Your task to perform on an android device: turn off picture-in-picture Image 0: 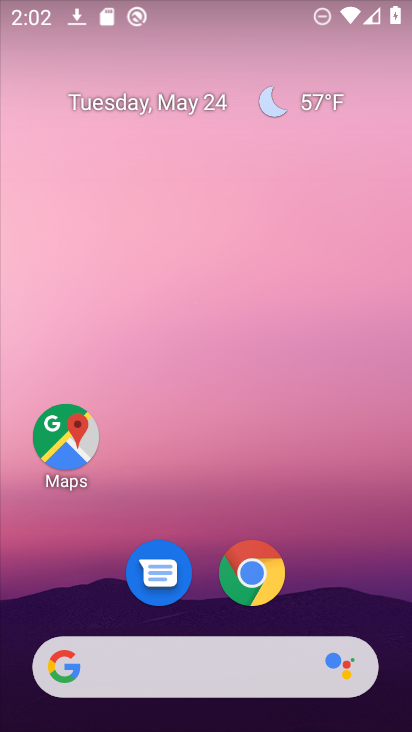
Step 0: drag from (373, 533) to (339, 144)
Your task to perform on an android device: turn off picture-in-picture Image 1: 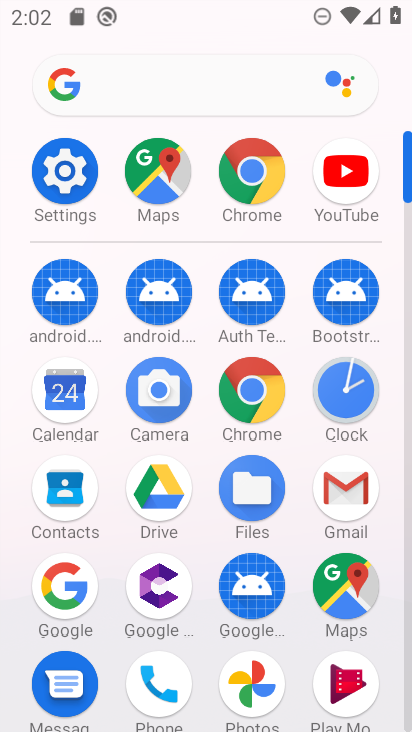
Step 1: click (76, 172)
Your task to perform on an android device: turn off picture-in-picture Image 2: 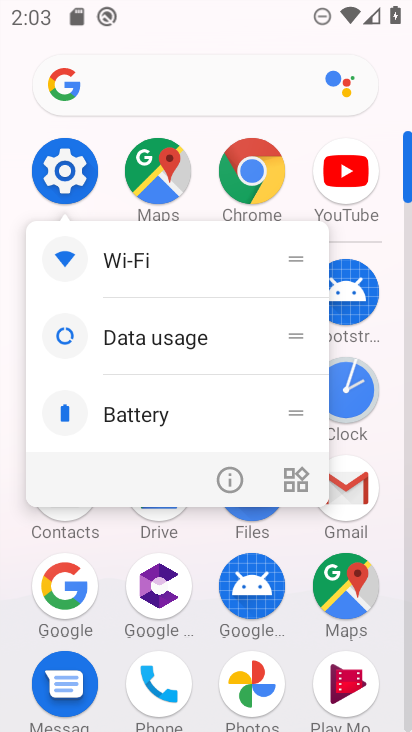
Step 2: click (45, 180)
Your task to perform on an android device: turn off picture-in-picture Image 3: 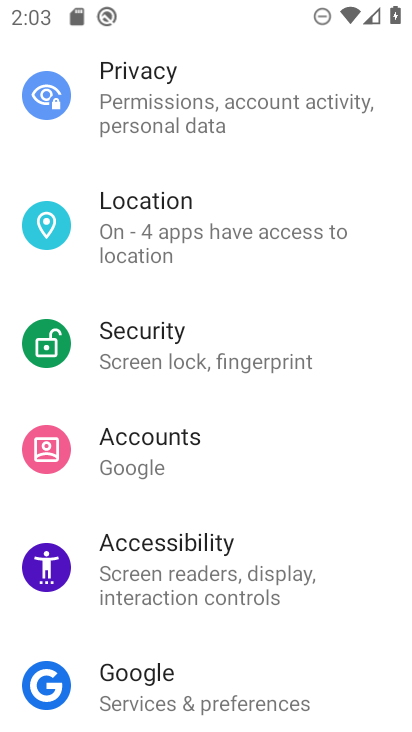
Step 3: drag from (187, 206) to (230, 512)
Your task to perform on an android device: turn off picture-in-picture Image 4: 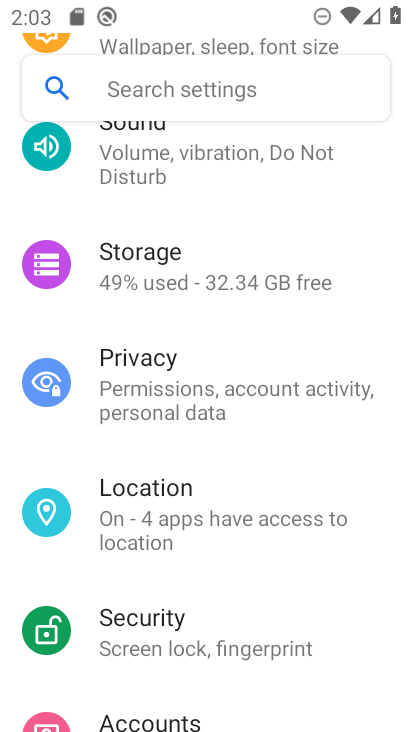
Step 4: drag from (205, 178) to (218, 500)
Your task to perform on an android device: turn off picture-in-picture Image 5: 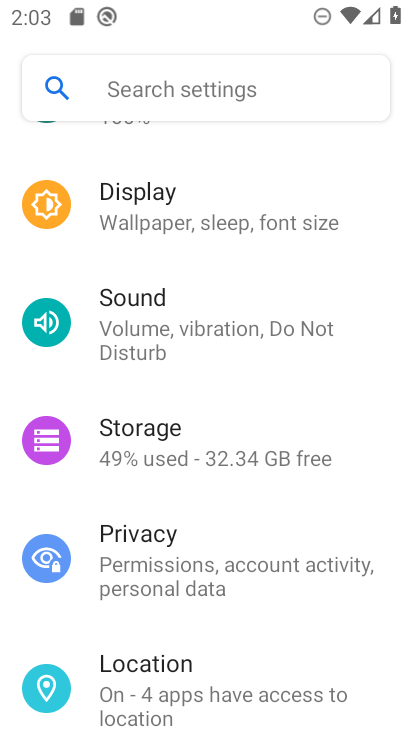
Step 5: drag from (230, 241) to (234, 573)
Your task to perform on an android device: turn off picture-in-picture Image 6: 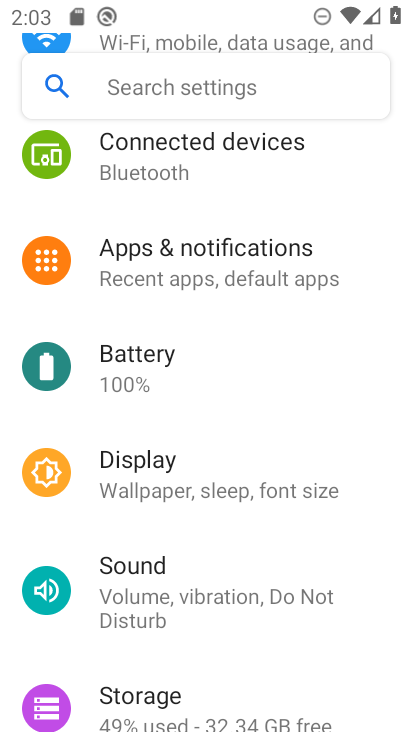
Step 6: click (218, 274)
Your task to perform on an android device: turn off picture-in-picture Image 7: 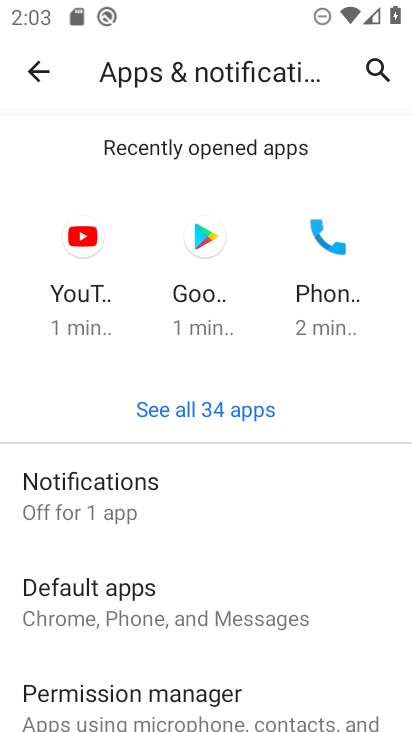
Step 7: drag from (246, 562) to (255, 261)
Your task to perform on an android device: turn off picture-in-picture Image 8: 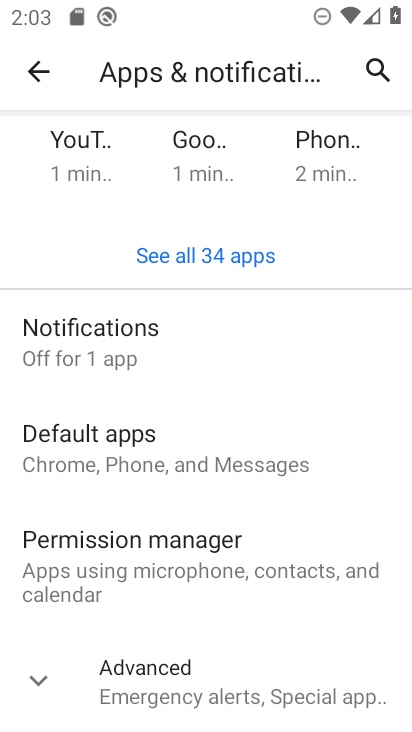
Step 8: drag from (272, 630) to (272, 411)
Your task to perform on an android device: turn off picture-in-picture Image 9: 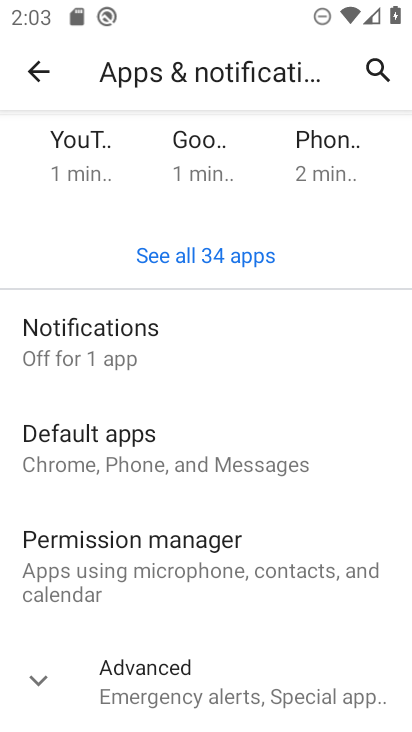
Step 9: click (219, 692)
Your task to perform on an android device: turn off picture-in-picture Image 10: 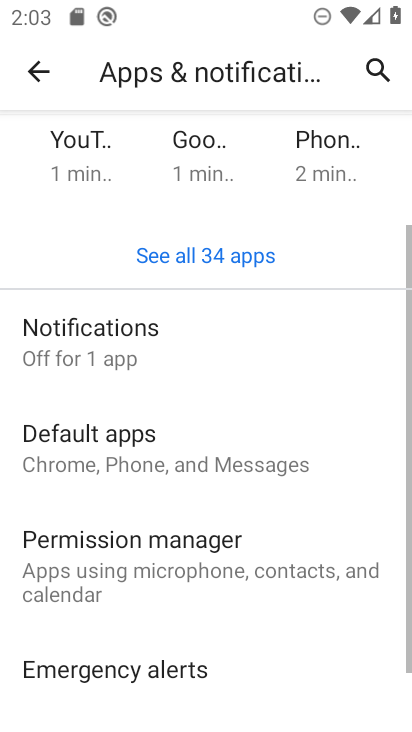
Step 10: drag from (224, 670) to (229, 240)
Your task to perform on an android device: turn off picture-in-picture Image 11: 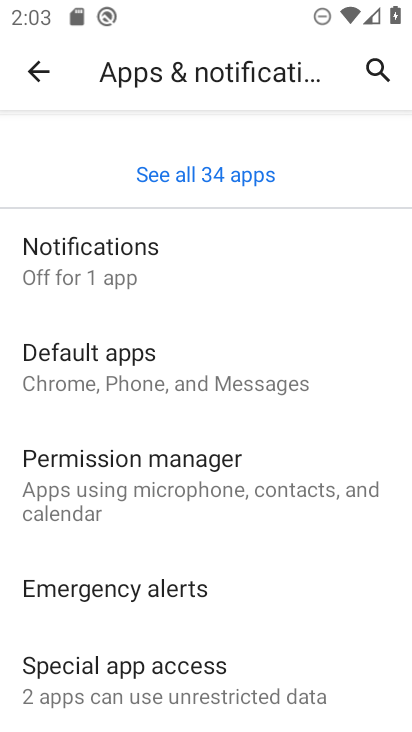
Step 11: drag from (315, 600) to (317, 256)
Your task to perform on an android device: turn off picture-in-picture Image 12: 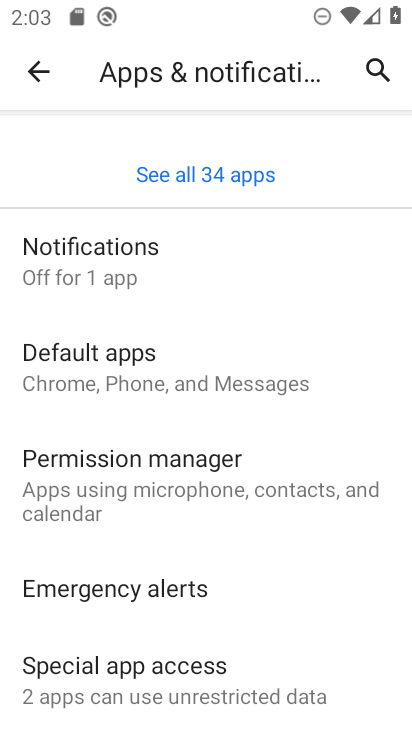
Step 12: drag from (319, 581) to (312, 281)
Your task to perform on an android device: turn off picture-in-picture Image 13: 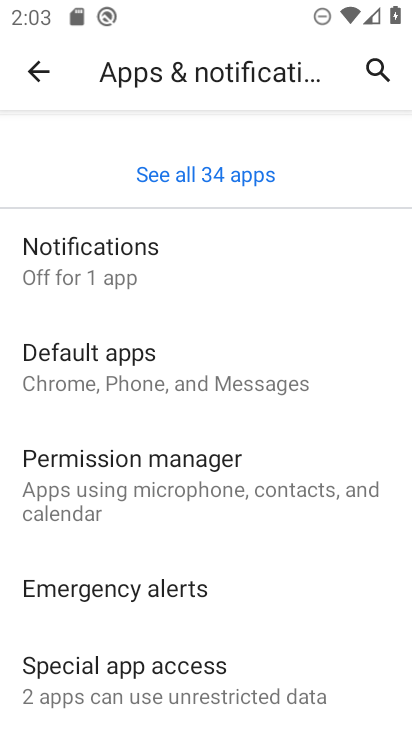
Step 13: click (188, 668)
Your task to perform on an android device: turn off picture-in-picture Image 14: 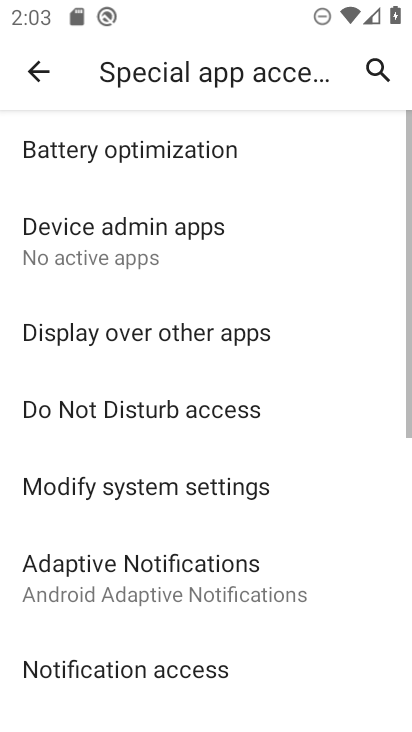
Step 14: drag from (258, 641) to (266, 276)
Your task to perform on an android device: turn off picture-in-picture Image 15: 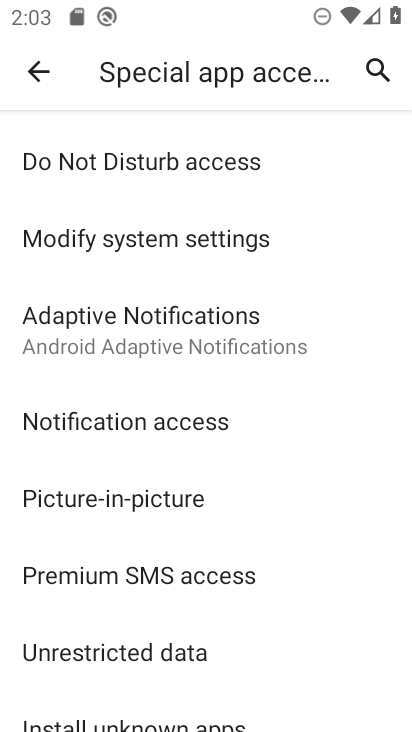
Step 15: click (215, 491)
Your task to perform on an android device: turn off picture-in-picture Image 16: 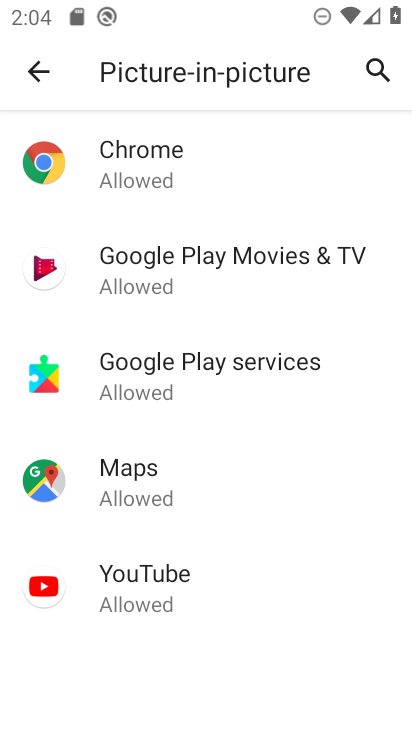
Step 16: click (230, 174)
Your task to perform on an android device: turn off picture-in-picture Image 17: 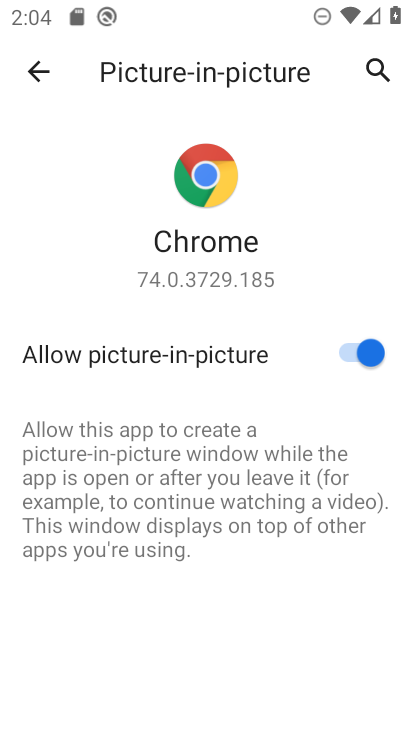
Step 17: click (341, 346)
Your task to perform on an android device: turn off picture-in-picture Image 18: 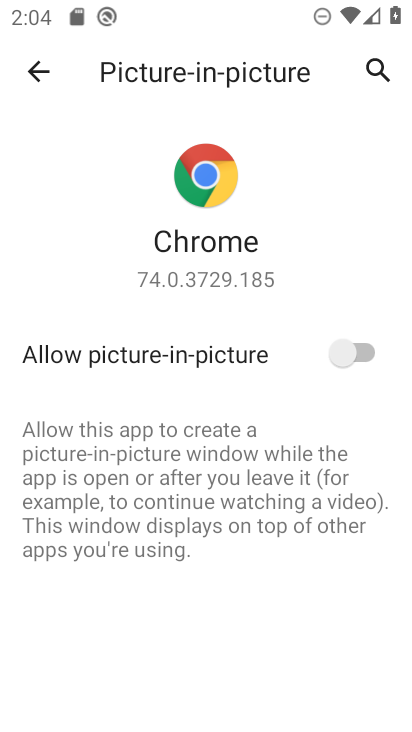
Step 18: task complete